Your task to perform on an android device: turn off data saver in the chrome app Image 0: 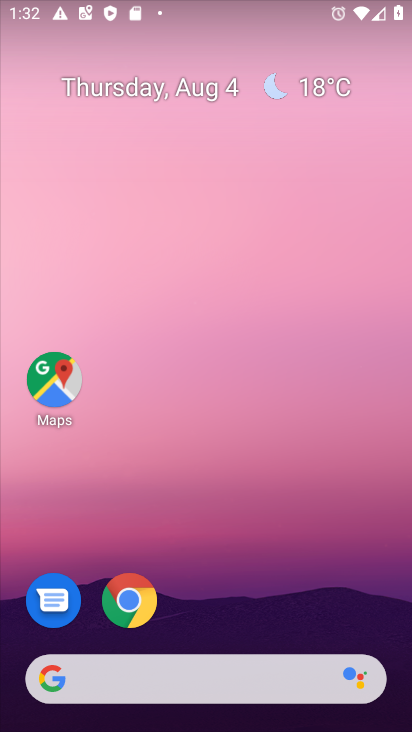
Step 0: press home button
Your task to perform on an android device: turn off data saver in the chrome app Image 1: 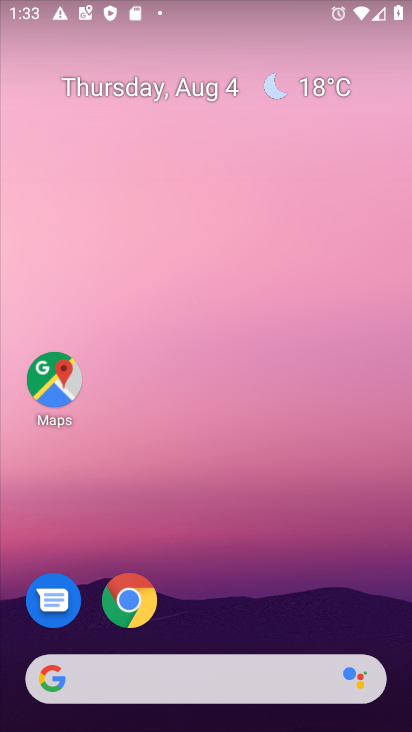
Step 1: click (134, 609)
Your task to perform on an android device: turn off data saver in the chrome app Image 2: 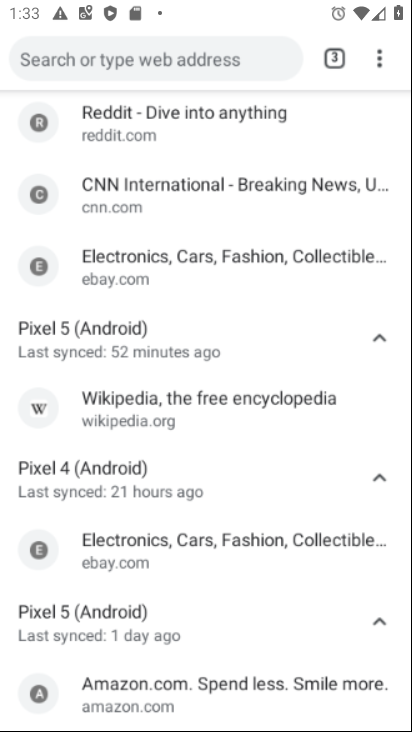
Step 2: drag from (380, 53) to (295, 341)
Your task to perform on an android device: turn off data saver in the chrome app Image 3: 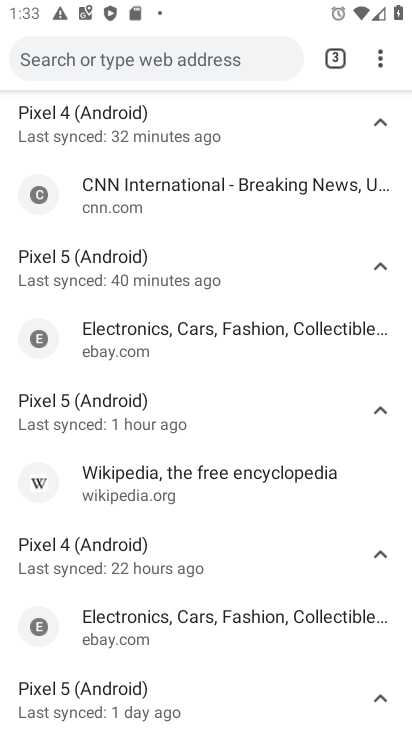
Step 3: drag from (378, 64) to (246, 562)
Your task to perform on an android device: turn off data saver in the chrome app Image 4: 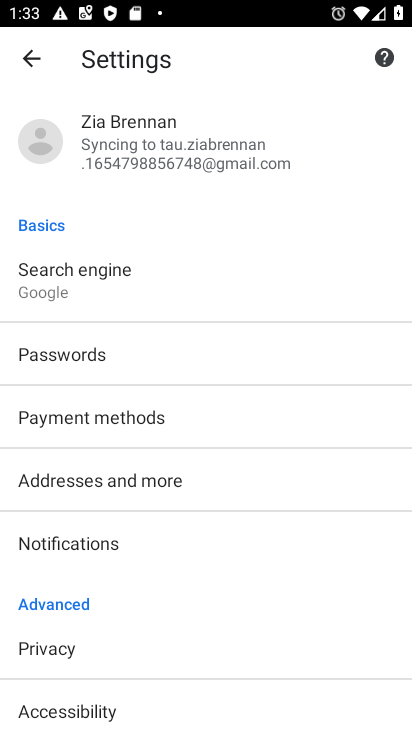
Step 4: drag from (127, 672) to (248, 261)
Your task to perform on an android device: turn off data saver in the chrome app Image 5: 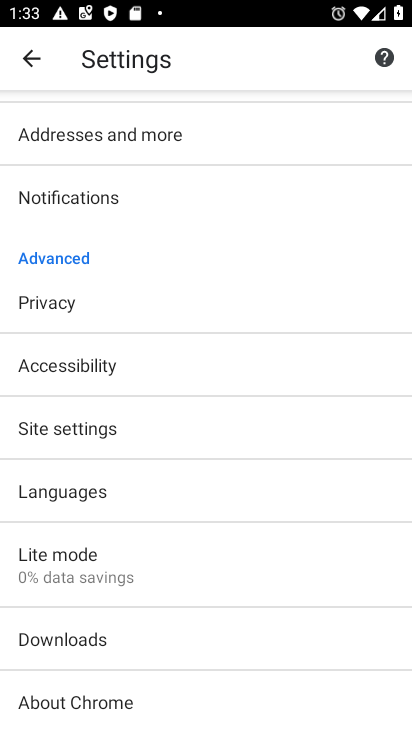
Step 5: click (112, 570)
Your task to perform on an android device: turn off data saver in the chrome app Image 6: 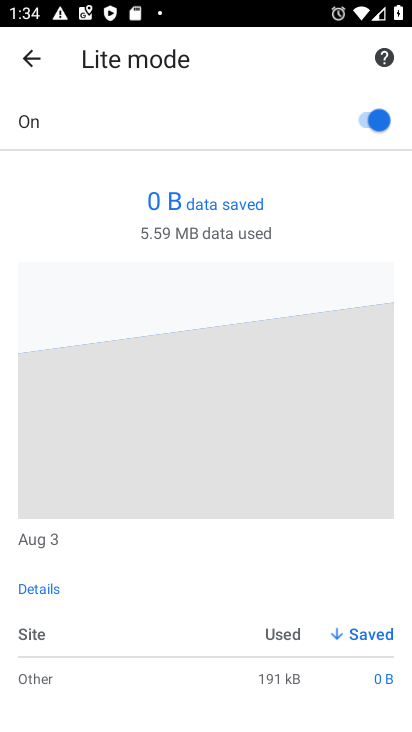
Step 6: click (363, 117)
Your task to perform on an android device: turn off data saver in the chrome app Image 7: 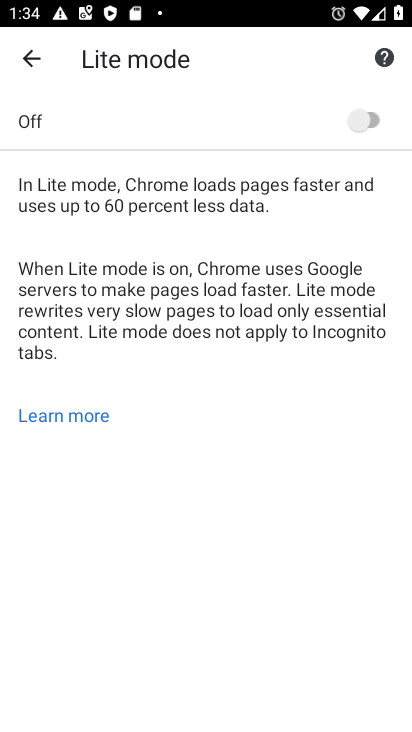
Step 7: task complete